Your task to perform on an android device: What's the weather going to be tomorrow? Image 0: 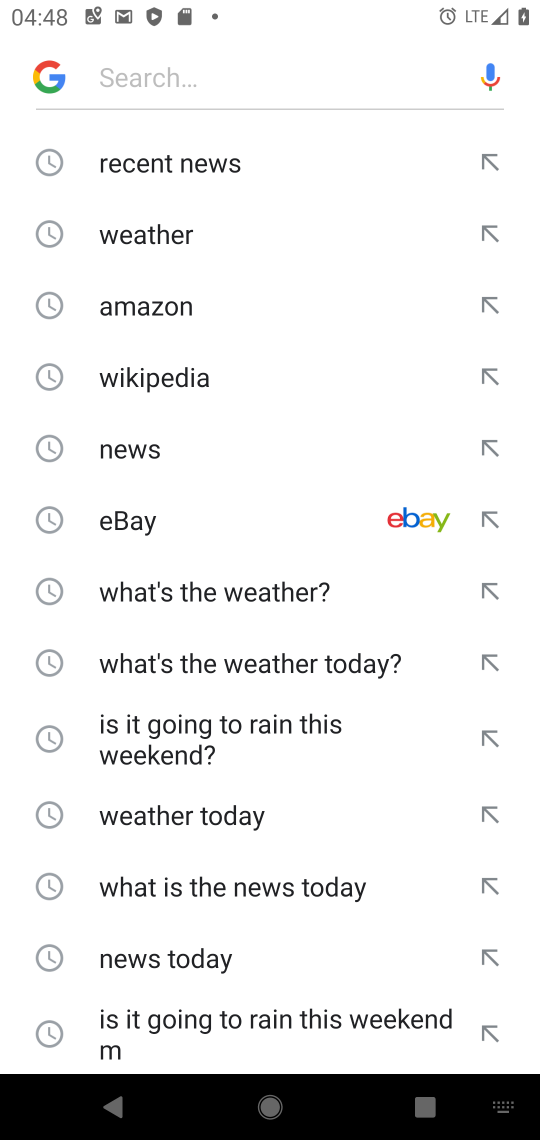
Step 0: press back button
Your task to perform on an android device: What's the weather going to be tomorrow? Image 1: 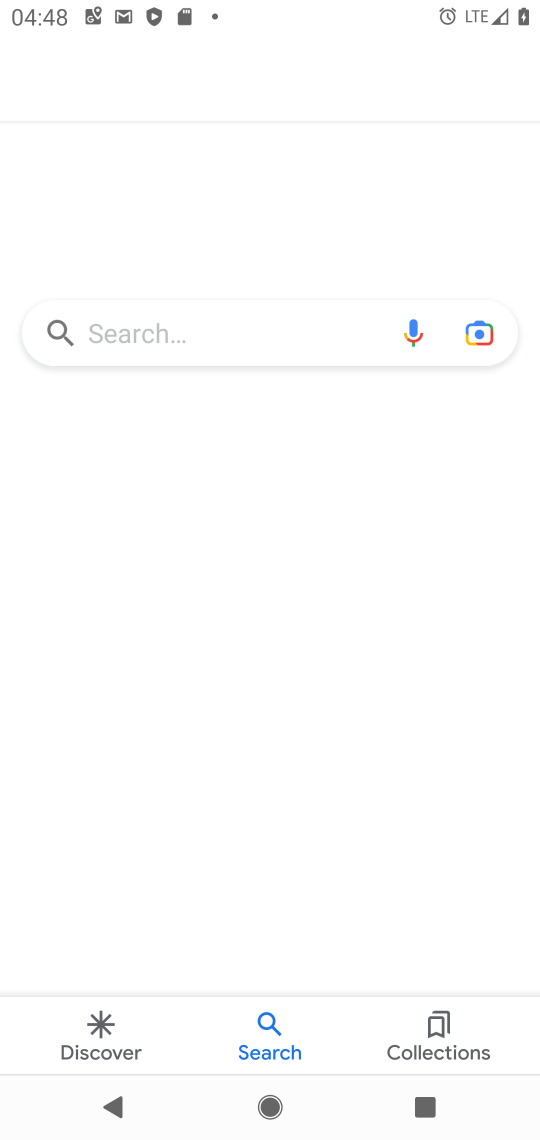
Step 1: click (212, 341)
Your task to perform on an android device: What's the weather going to be tomorrow? Image 2: 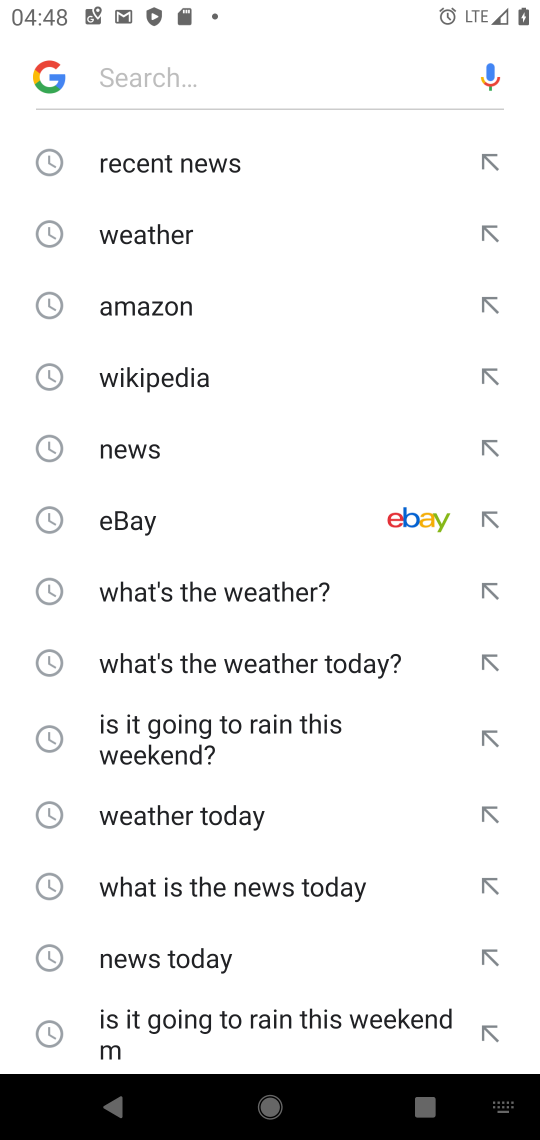
Step 2: click (141, 235)
Your task to perform on an android device: What's the weather going to be tomorrow? Image 3: 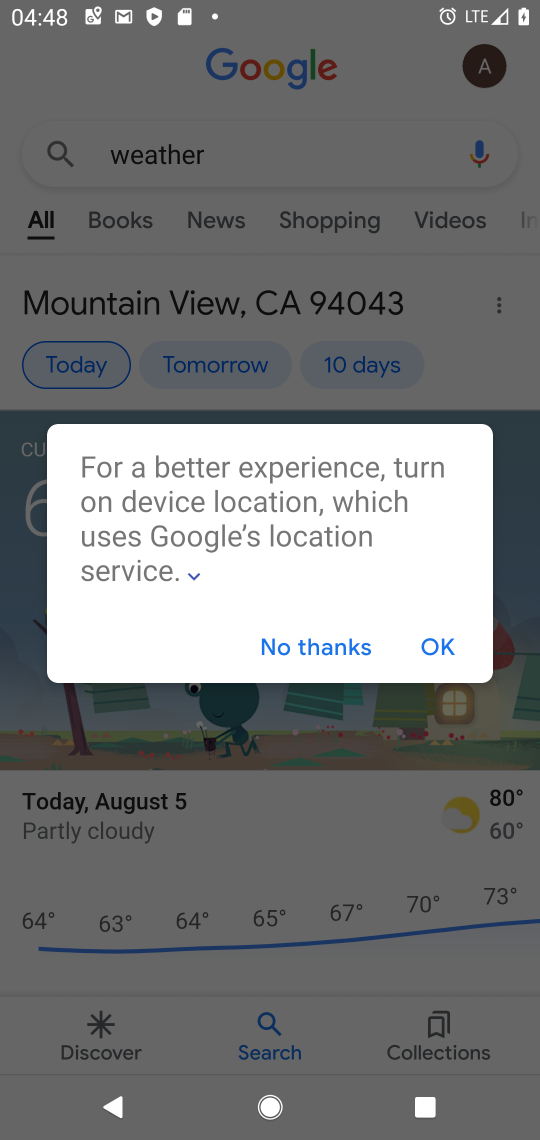
Step 3: click (322, 642)
Your task to perform on an android device: What's the weather going to be tomorrow? Image 4: 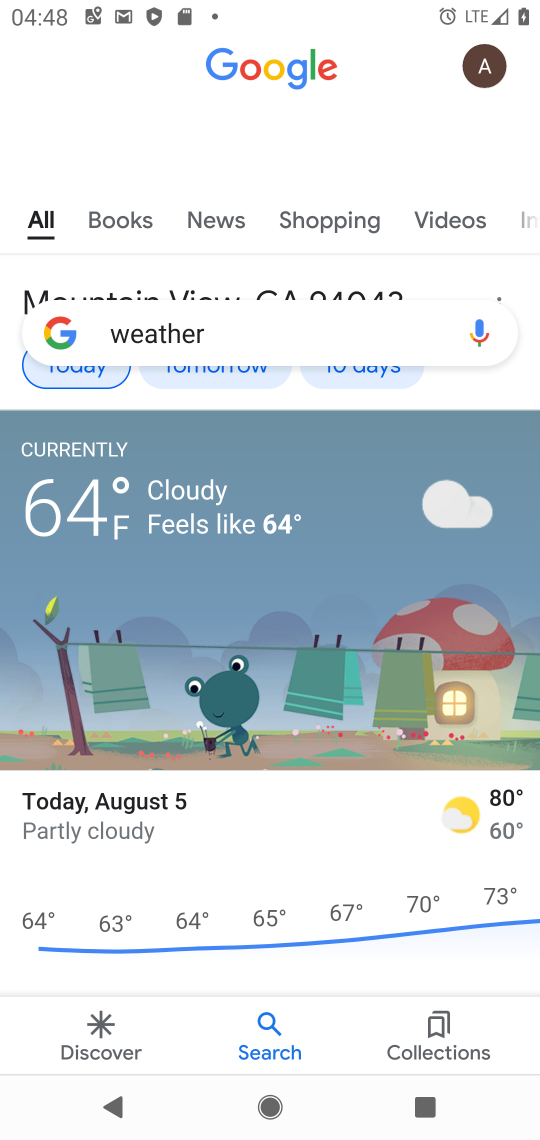
Step 4: click (206, 354)
Your task to perform on an android device: What's the weather going to be tomorrow? Image 5: 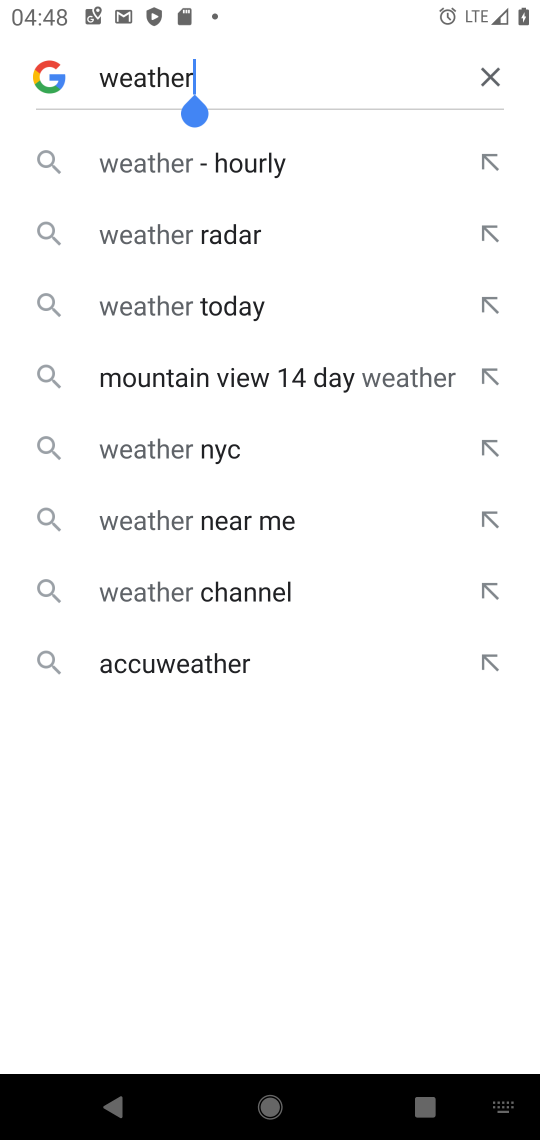
Step 5: click (212, 358)
Your task to perform on an android device: What's the weather going to be tomorrow? Image 6: 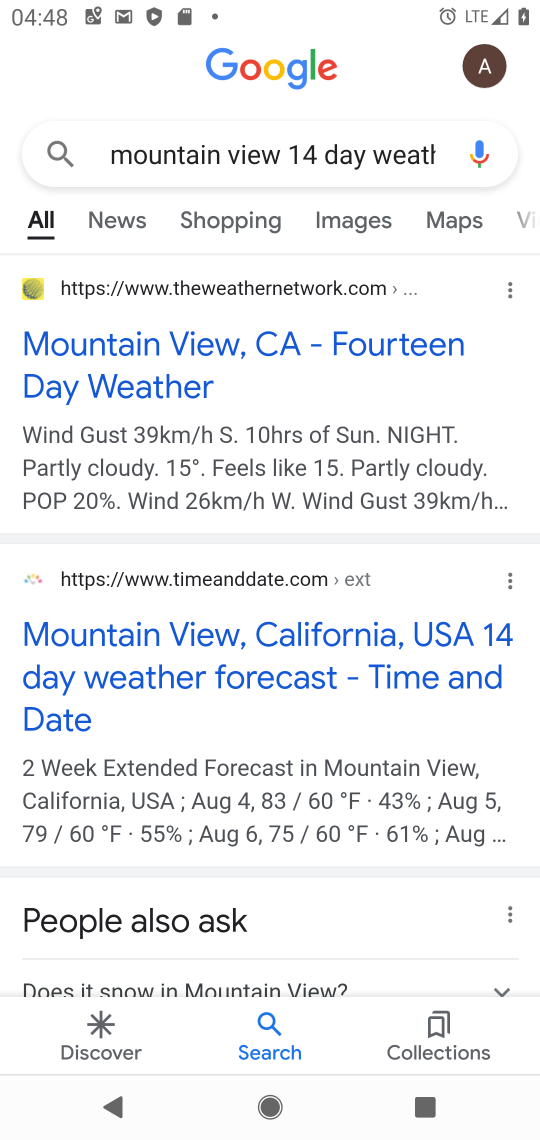
Step 6: click (449, 157)
Your task to perform on an android device: What's the weather going to be tomorrow? Image 7: 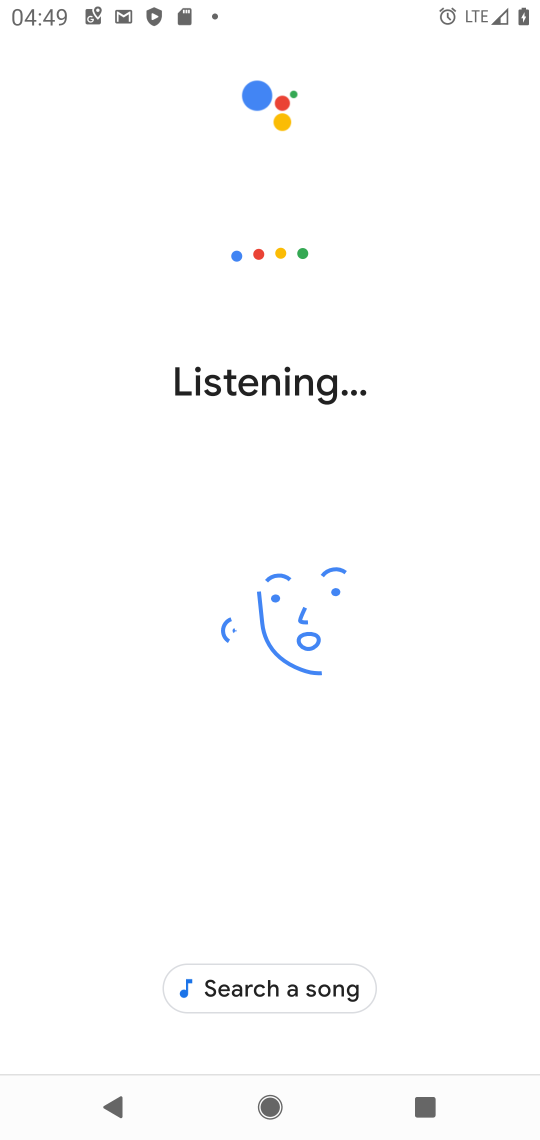
Step 7: press back button
Your task to perform on an android device: What's the weather going to be tomorrow? Image 8: 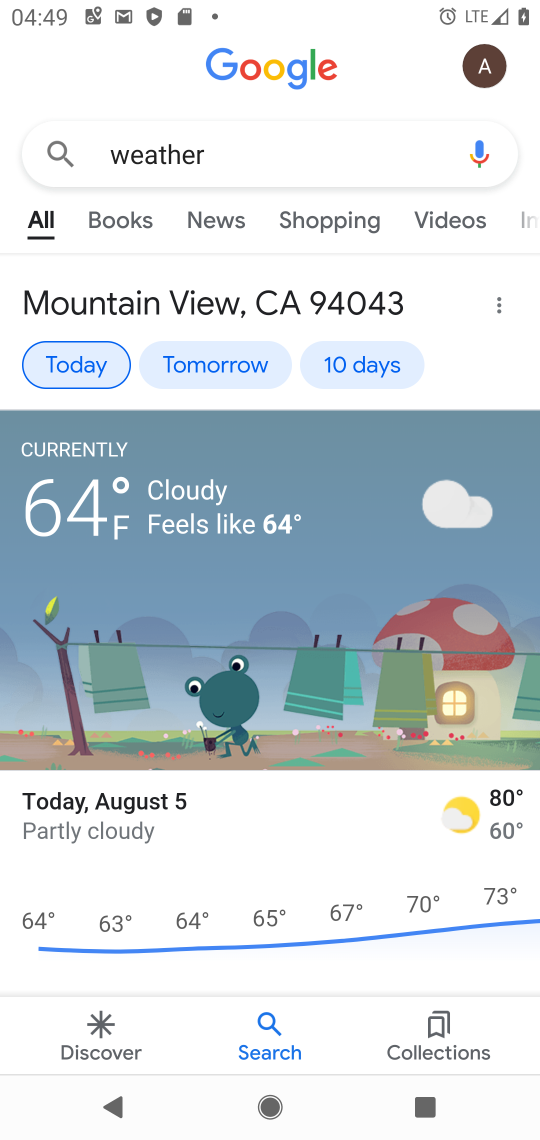
Step 8: click (202, 370)
Your task to perform on an android device: What's the weather going to be tomorrow? Image 9: 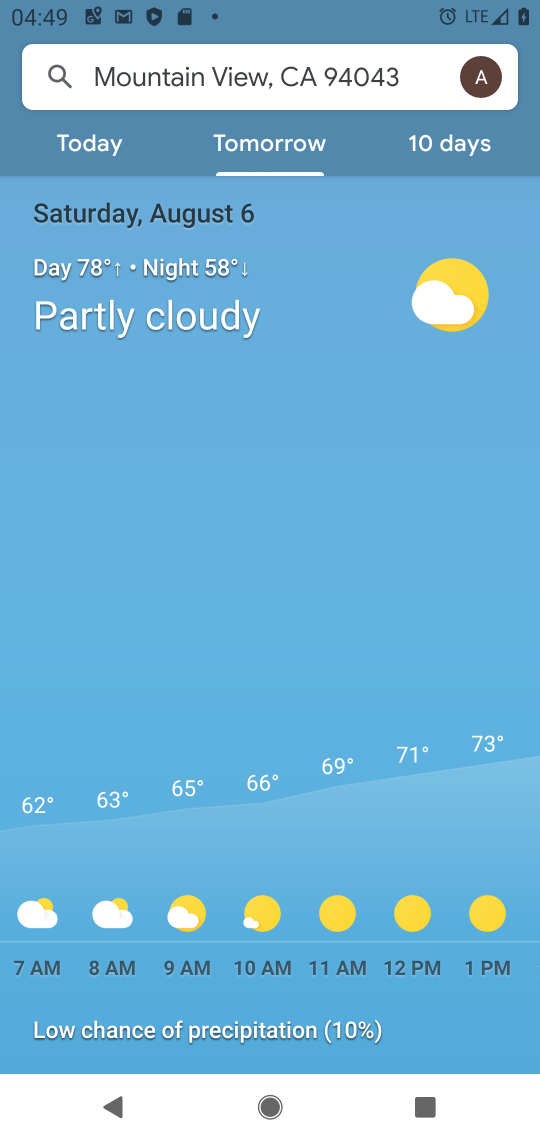
Step 9: task complete